Your task to perform on an android device: open a bookmark in the chrome app Image 0: 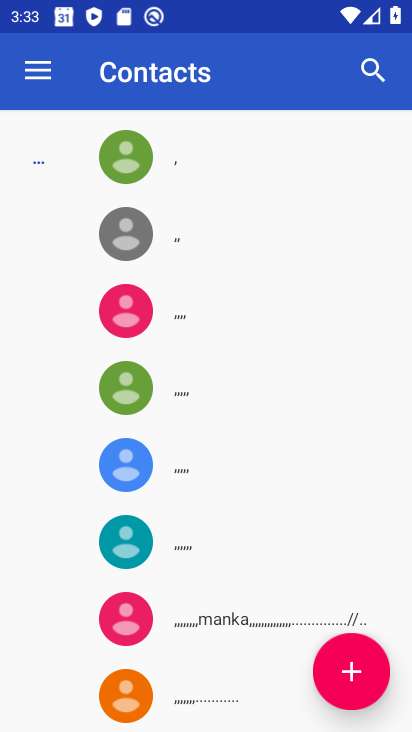
Step 0: press home button
Your task to perform on an android device: open a bookmark in the chrome app Image 1: 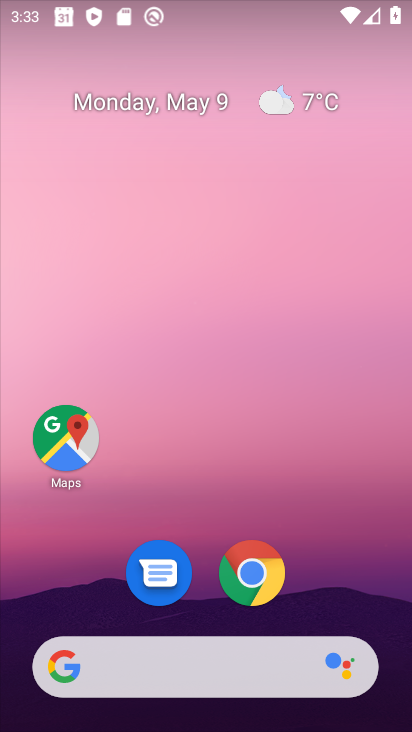
Step 1: click (266, 588)
Your task to perform on an android device: open a bookmark in the chrome app Image 2: 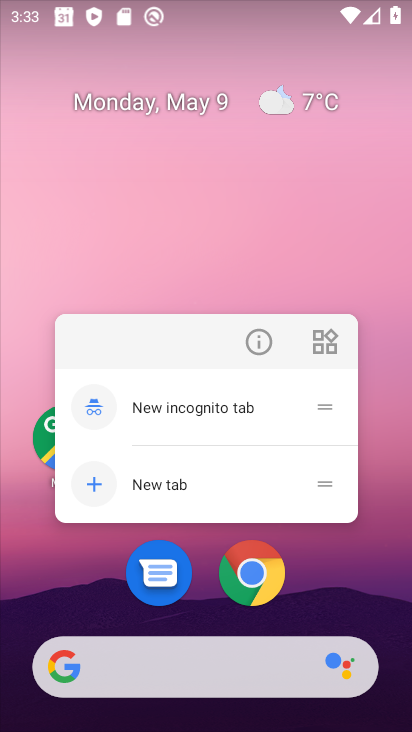
Step 2: click (259, 579)
Your task to perform on an android device: open a bookmark in the chrome app Image 3: 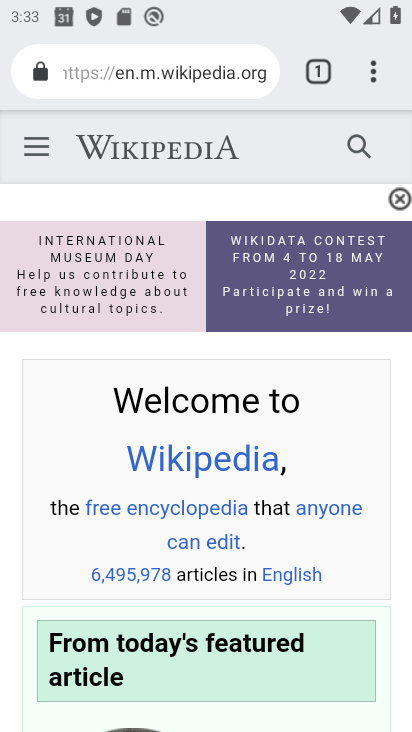
Step 3: drag from (371, 69) to (124, 270)
Your task to perform on an android device: open a bookmark in the chrome app Image 4: 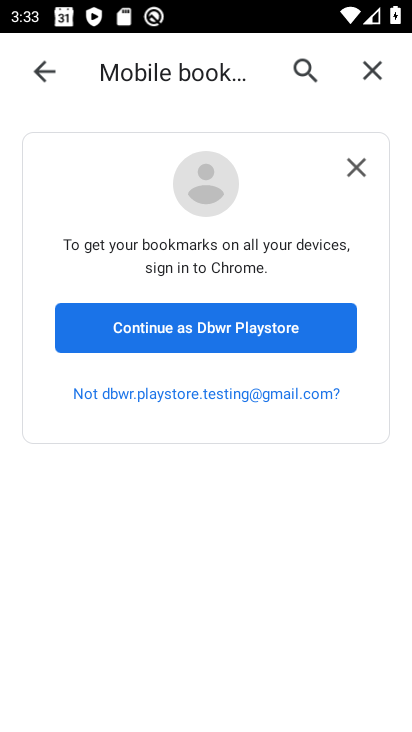
Step 4: click (164, 325)
Your task to perform on an android device: open a bookmark in the chrome app Image 5: 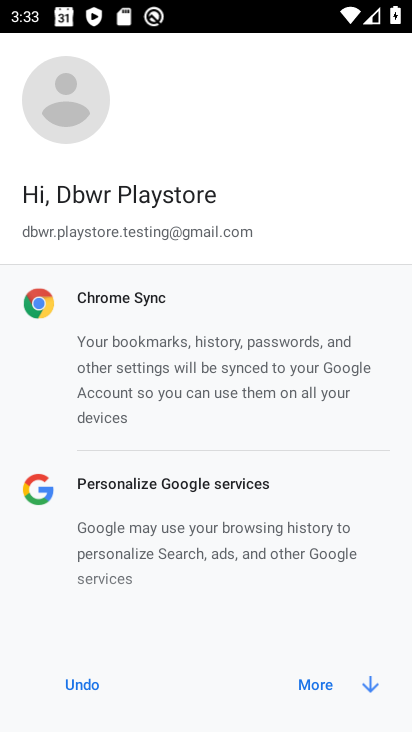
Step 5: click (319, 688)
Your task to perform on an android device: open a bookmark in the chrome app Image 6: 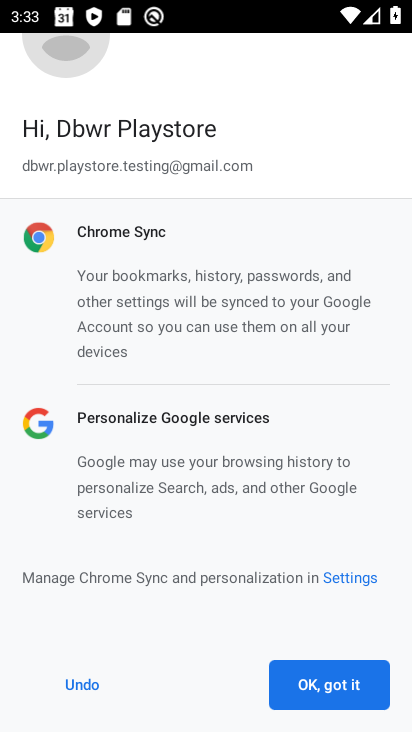
Step 6: click (319, 688)
Your task to perform on an android device: open a bookmark in the chrome app Image 7: 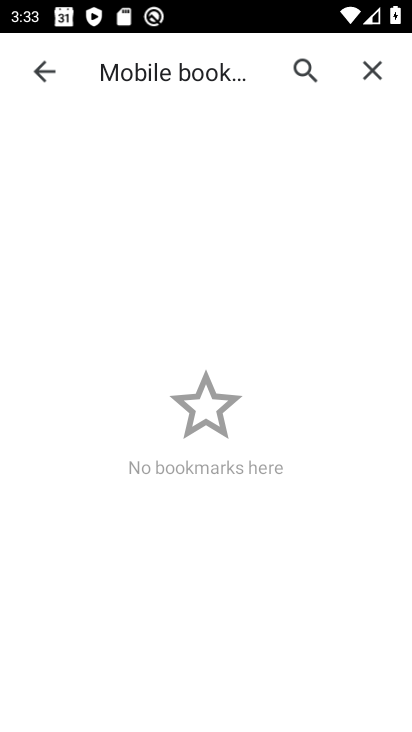
Step 7: task complete